Your task to perform on an android device: see sites visited before in the chrome app Image 0: 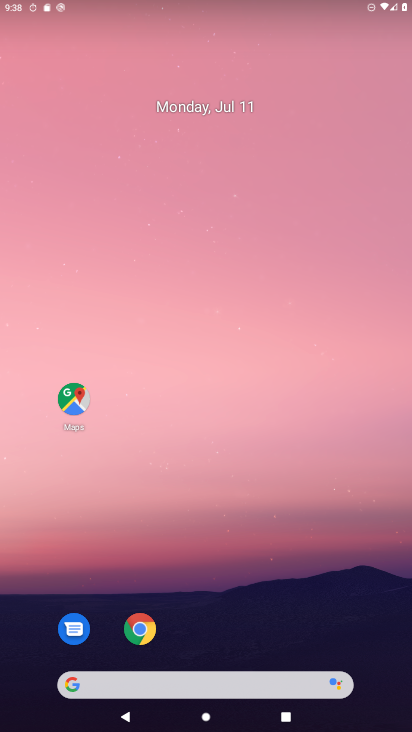
Step 0: click (158, 116)
Your task to perform on an android device: see sites visited before in the chrome app Image 1: 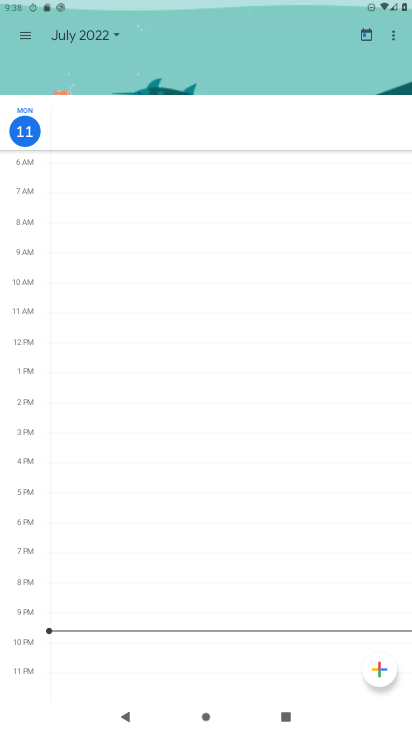
Step 1: click (114, 44)
Your task to perform on an android device: see sites visited before in the chrome app Image 2: 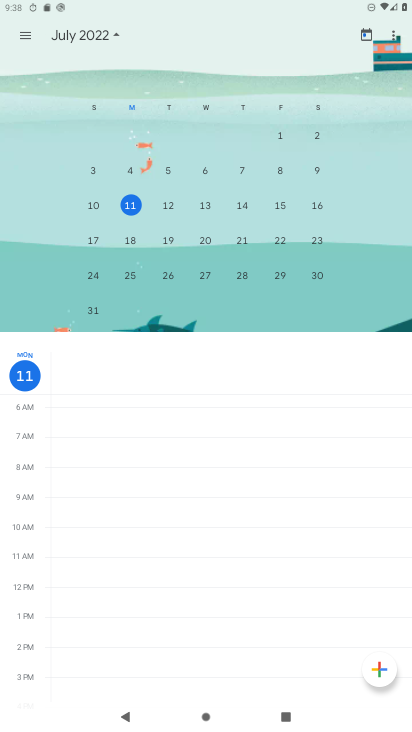
Step 2: click (320, 208)
Your task to perform on an android device: see sites visited before in the chrome app Image 3: 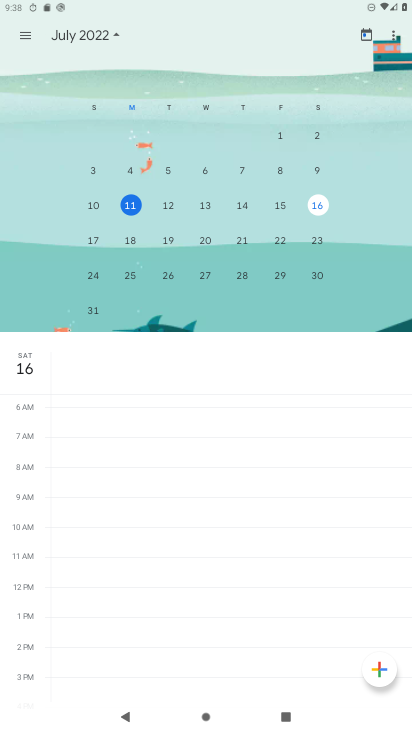
Step 3: task complete